Your task to perform on an android device: set the stopwatch Image 0: 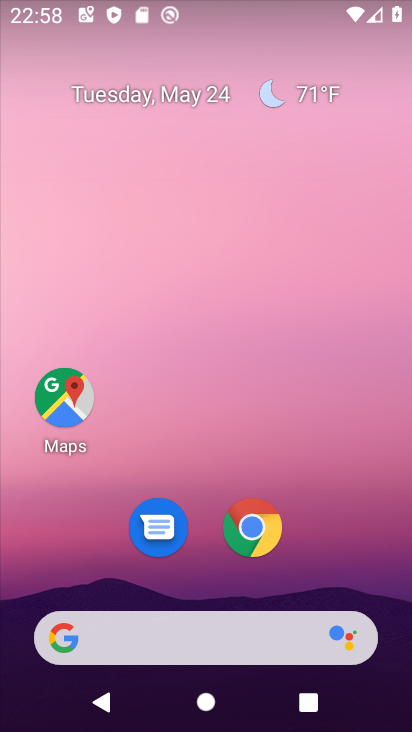
Step 0: drag from (312, 563) to (307, 40)
Your task to perform on an android device: set the stopwatch Image 1: 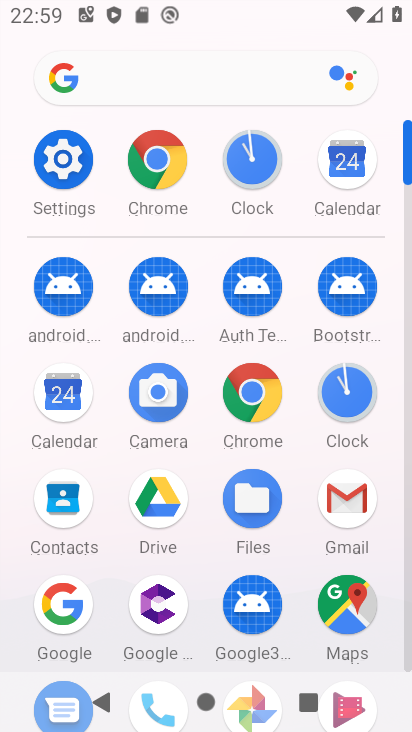
Step 1: click (342, 398)
Your task to perform on an android device: set the stopwatch Image 2: 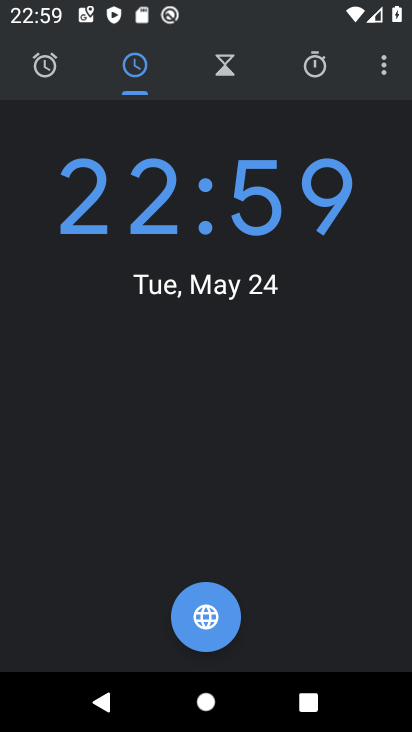
Step 2: click (305, 79)
Your task to perform on an android device: set the stopwatch Image 3: 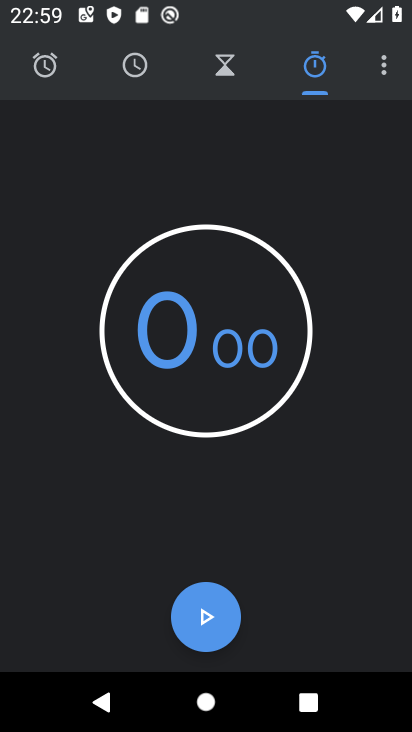
Step 3: click (204, 598)
Your task to perform on an android device: set the stopwatch Image 4: 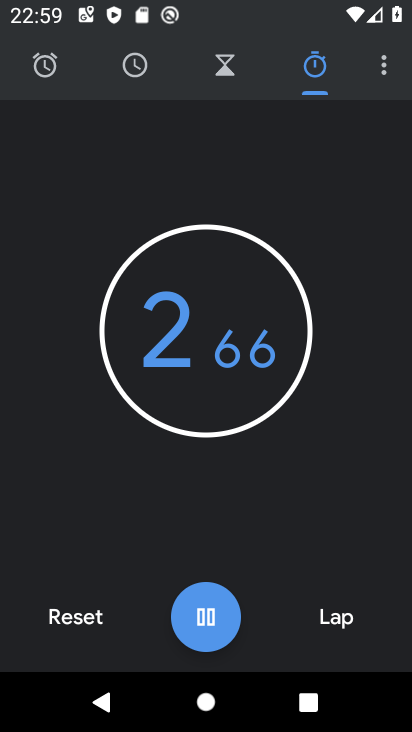
Step 4: task complete